Your task to perform on an android device: turn pop-ups off in chrome Image 0: 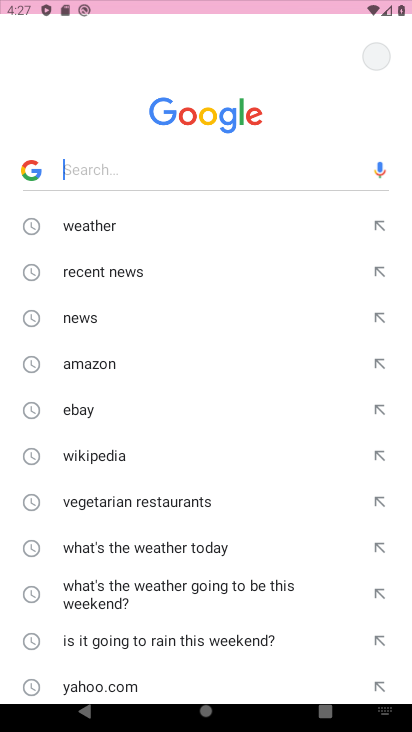
Step 0: click (34, 49)
Your task to perform on an android device: turn pop-ups off in chrome Image 1: 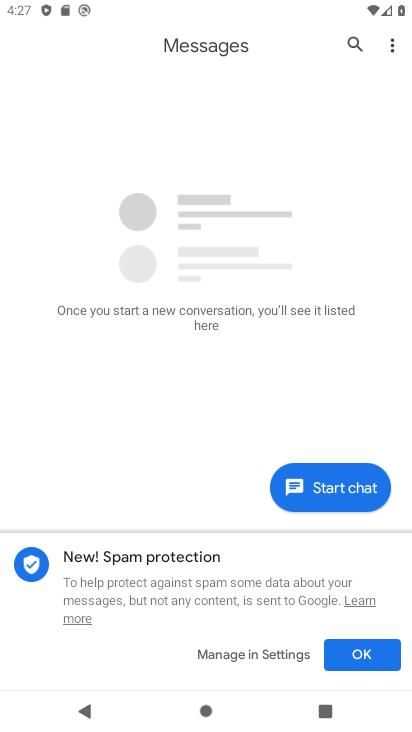
Step 1: click (349, 653)
Your task to perform on an android device: turn pop-ups off in chrome Image 2: 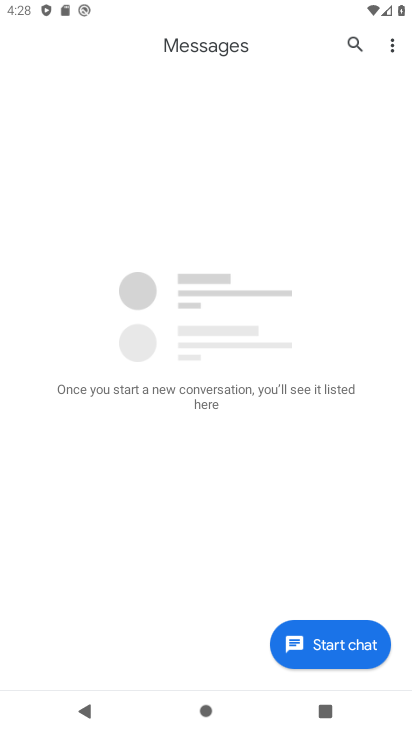
Step 2: press back button
Your task to perform on an android device: turn pop-ups off in chrome Image 3: 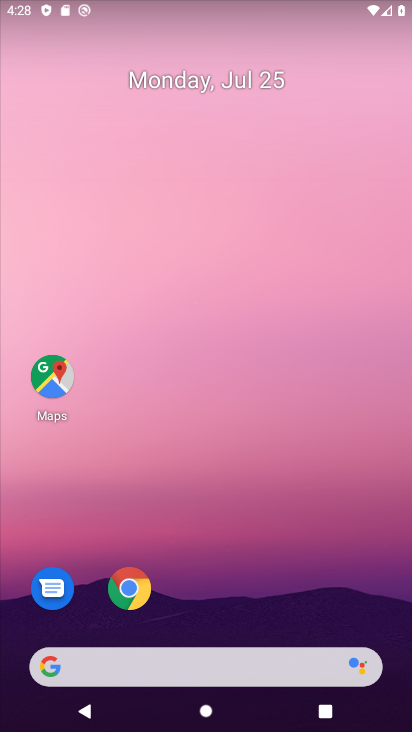
Step 3: drag from (228, 654) to (193, 271)
Your task to perform on an android device: turn pop-ups off in chrome Image 4: 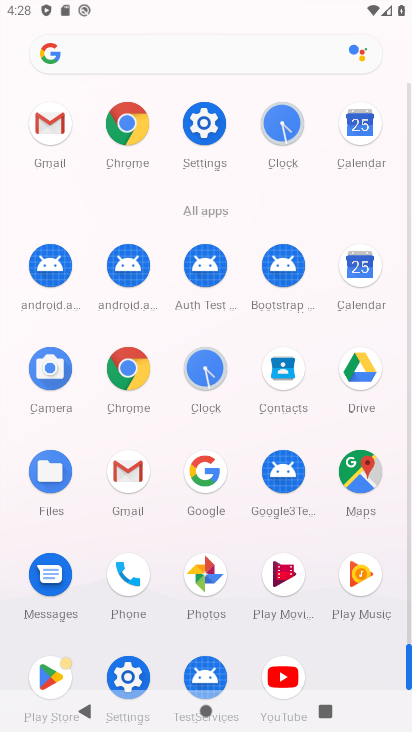
Step 4: click (139, 127)
Your task to perform on an android device: turn pop-ups off in chrome Image 5: 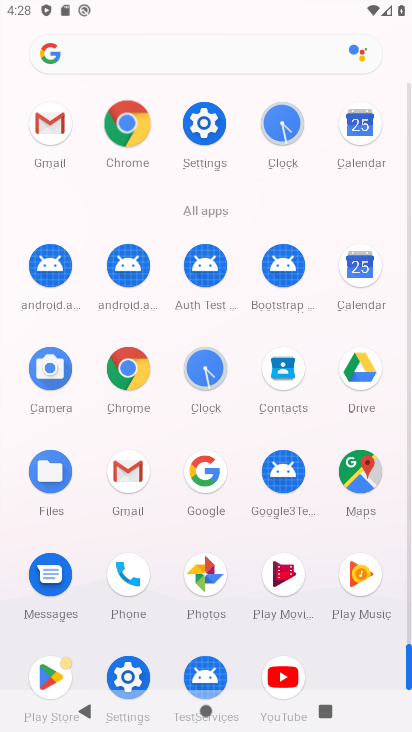
Step 5: click (139, 127)
Your task to perform on an android device: turn pop-ups off in chrome Image 6: 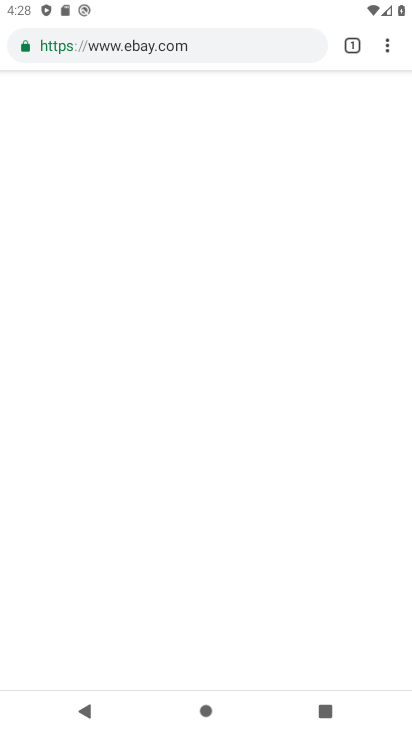
Step 6: drag from (388, 55) to (197, 519)
Your task to perform on an android device: turn pop-ups off in chrome Image 7: 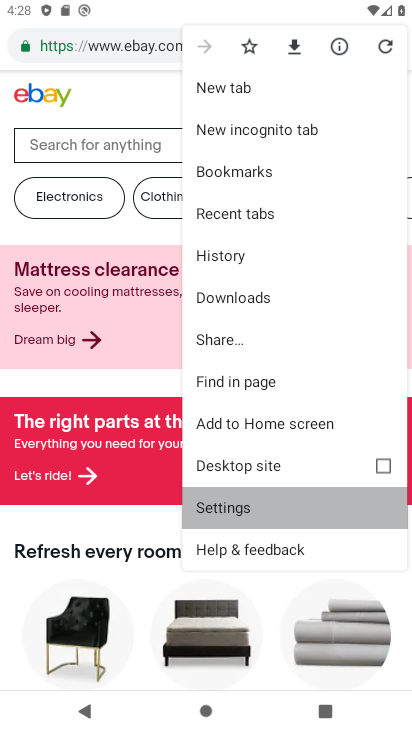
Step 7: click (197, 519)
Your task to perform on an android device: turn pop-ups off in chrome Image 8: 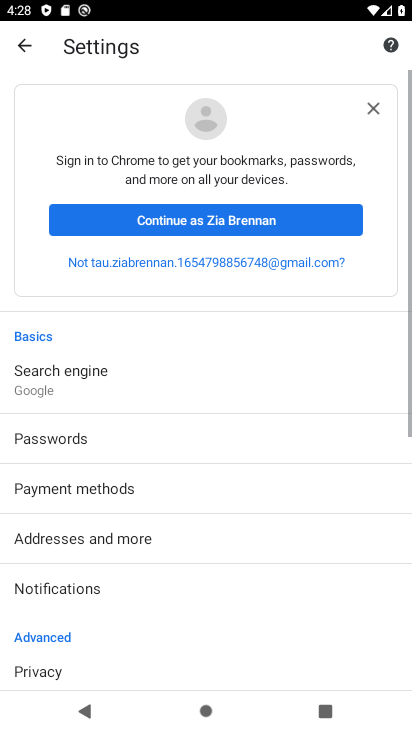
Step 8: click (98, 154)
Your task to perform on an android device: turn pop-ups off in chrome Image 9: 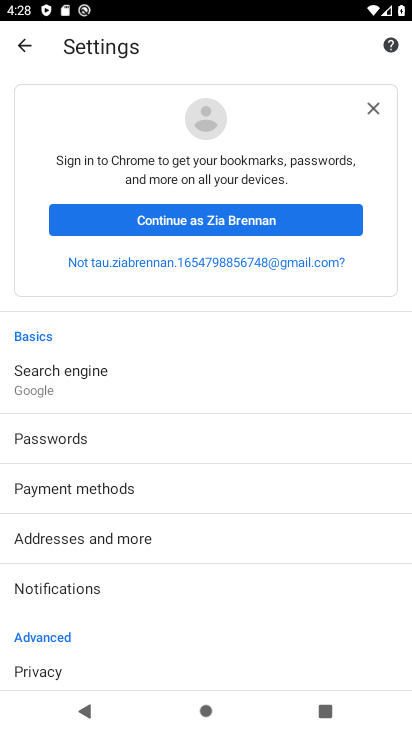
Step 9: drag from (73, 449) to (92, 227)
Your task to perform on an android device: turn pop-ups off in chrome Image 10: 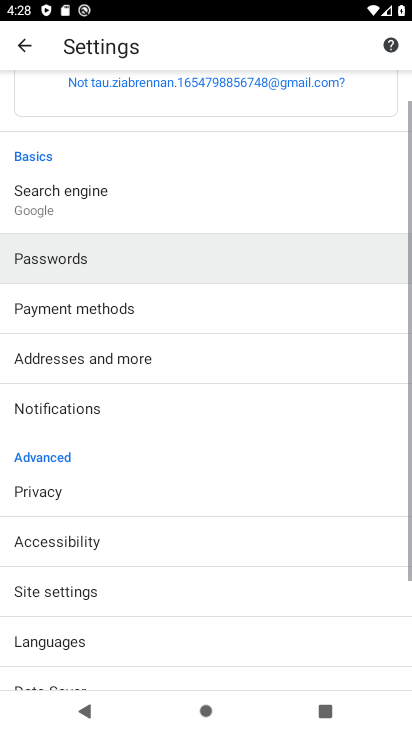
Step 10: drag from (155, 556) to (155, 232)
Your task to perform on an android device: turn pop-ups off in chrome Image 11: 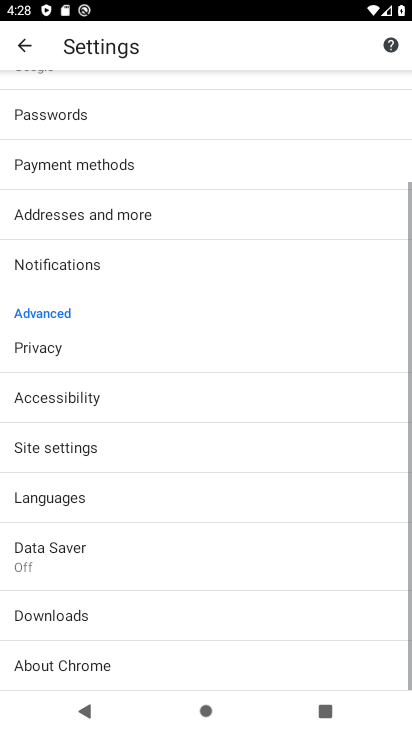
Step 11: drag from (85, 523) to (112, 234)
Your task to perform on an android device: turn pop-ups off in chrome Image 12: 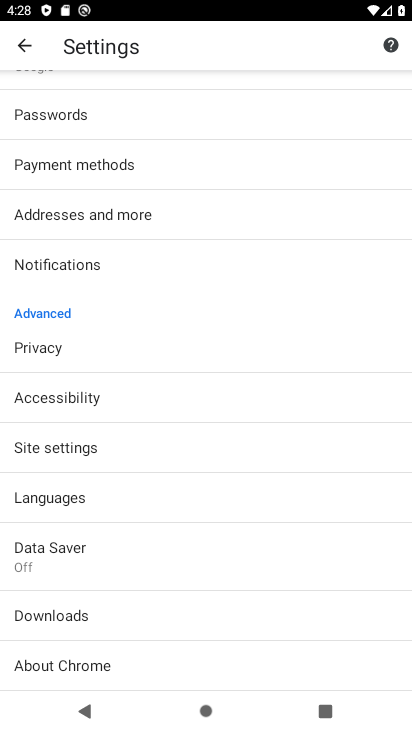
Step 12: click (50, 442)
Your task to perform on an android device: turn pop-ups off in chrome Image 13: 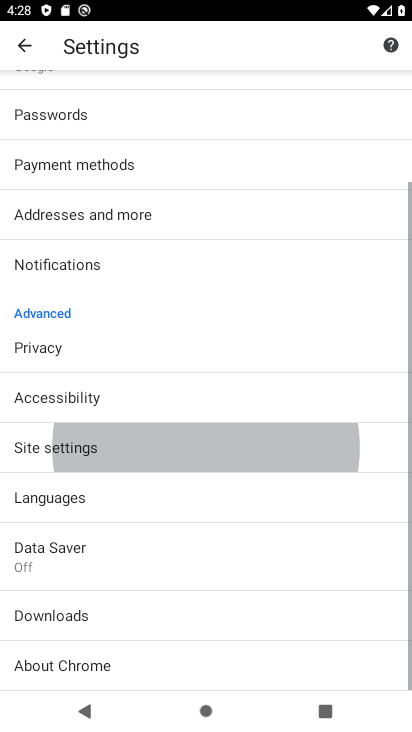
Step 13: click (54, 441)
Your task to perform on an android device: turn pop-ups off in chrome Image 14: 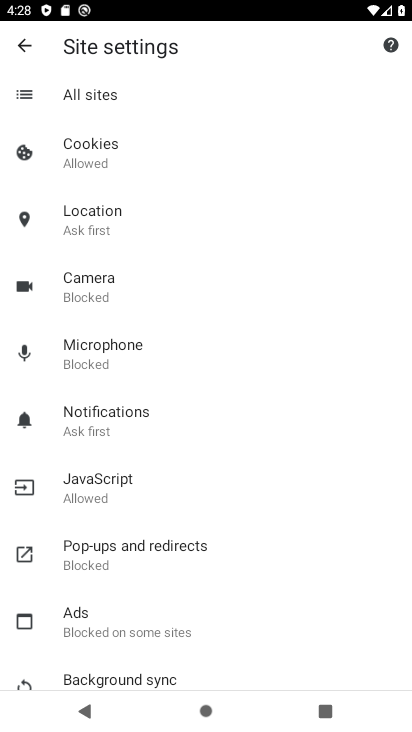
Step 14: click (100, 529)
Your task to perform on an android device: turn pop-ups off in chrome Image 15: 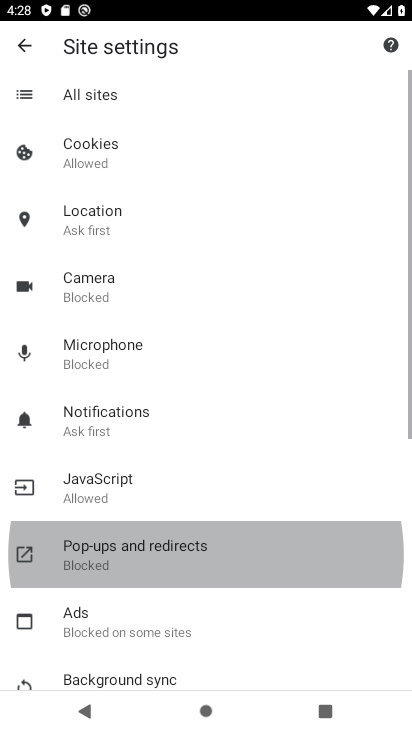
Step 15: click (100, 533)
Your task to perform on an android device: turn pop-ups off in chrome Image 16: 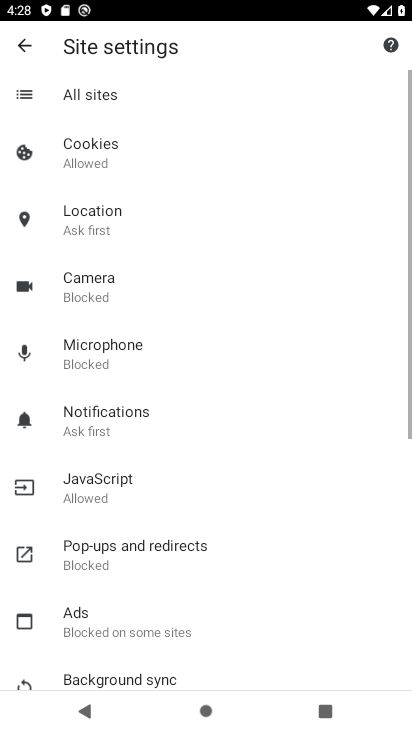
Step 16: click (100, 534)
Your task to perform on an android device: turn pop-ups off in chrome Image 17: 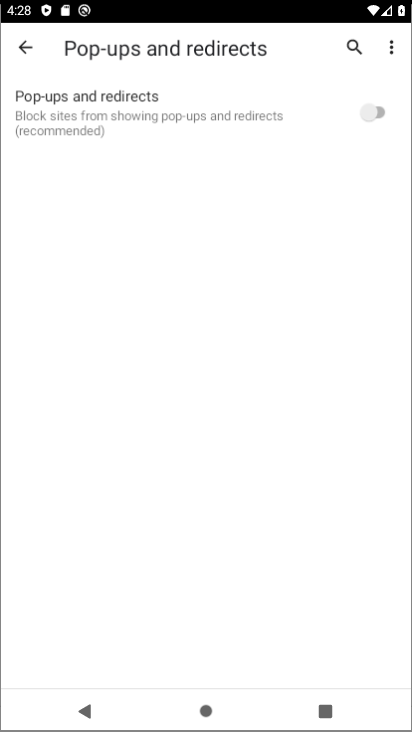
Step 17: click (99, 546)
Your task to perform on an android device: turn pop-ups off in chrome Image 18: 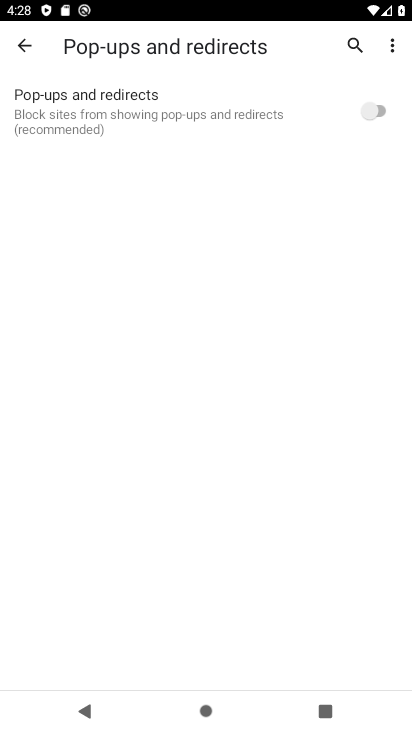
Step 18: task complete